Your task to perform on an android device: uninstall "Venmo" Image 0: 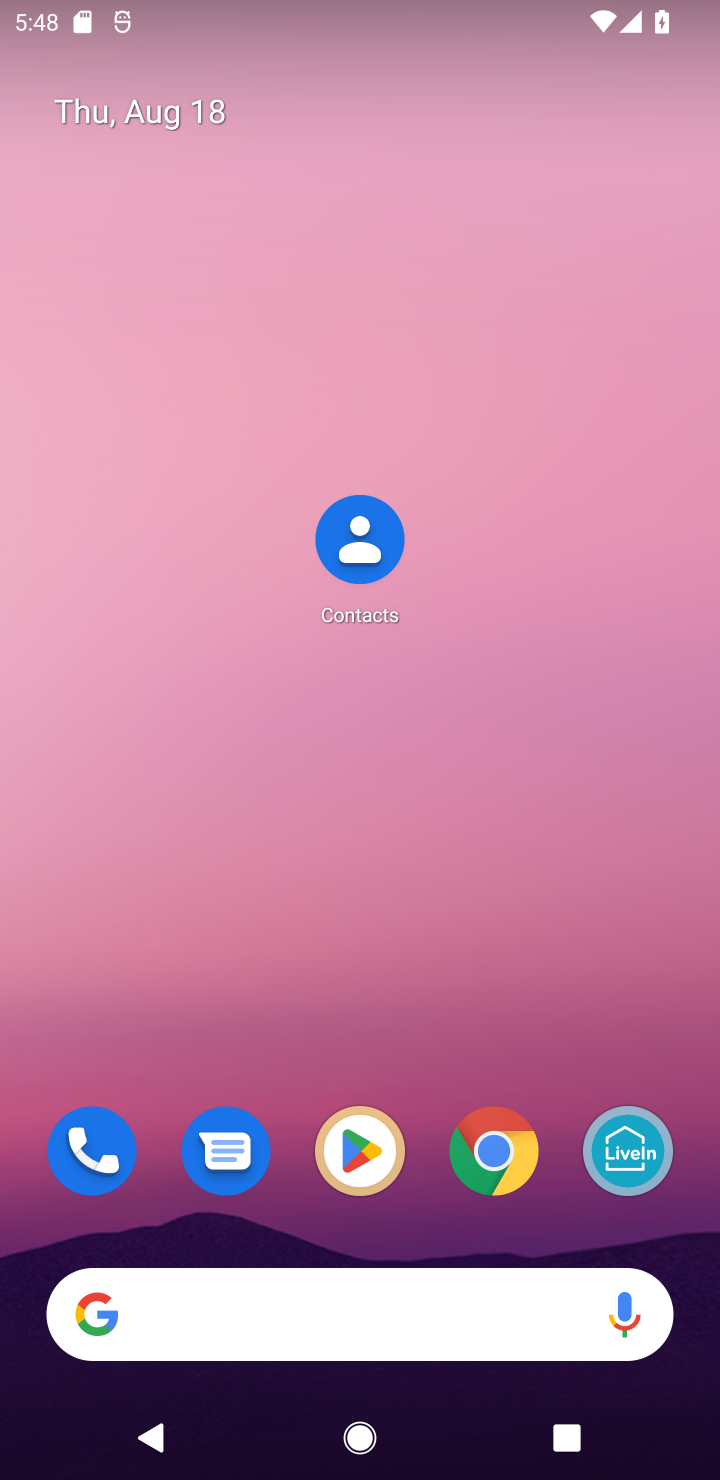
Step 0: drag from (424, 1215) to (620, 70)
Your task to perform on an android device: uninstall "Venmo" Image 1: 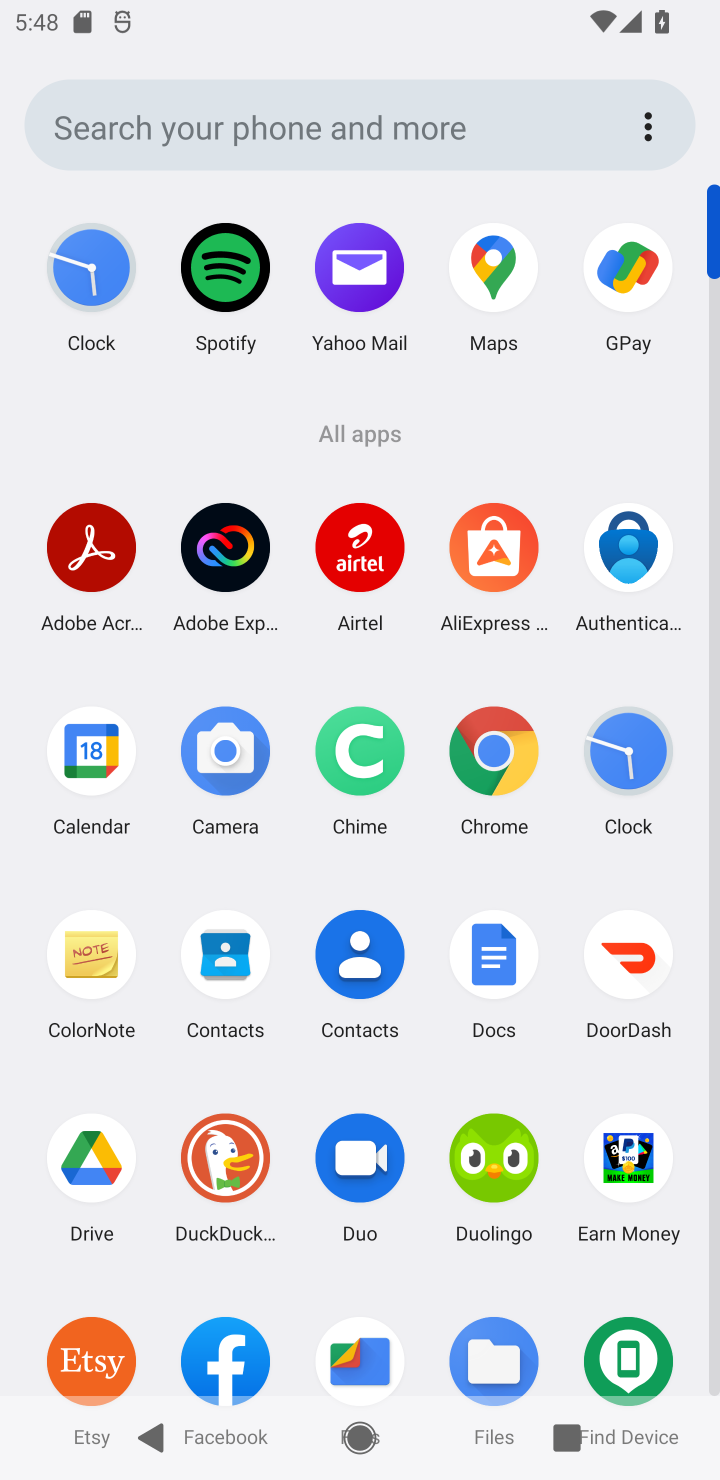
Step 1: click (339, 1476)
Your task to perform on an android device: uninstall "Venmo" Image 2: 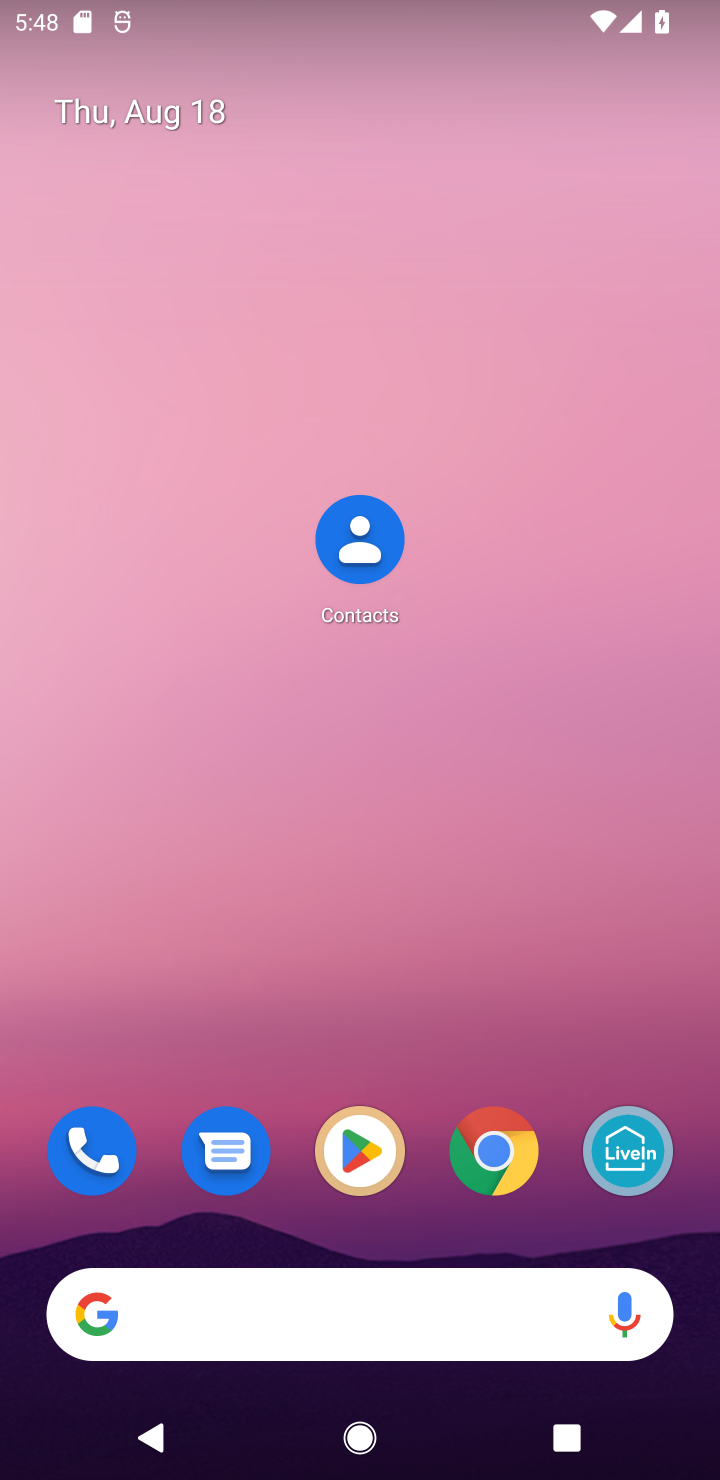
Step 2: click (355, 1184)
Your task to perform on an android device: uninstall "Venmo" Image 3: 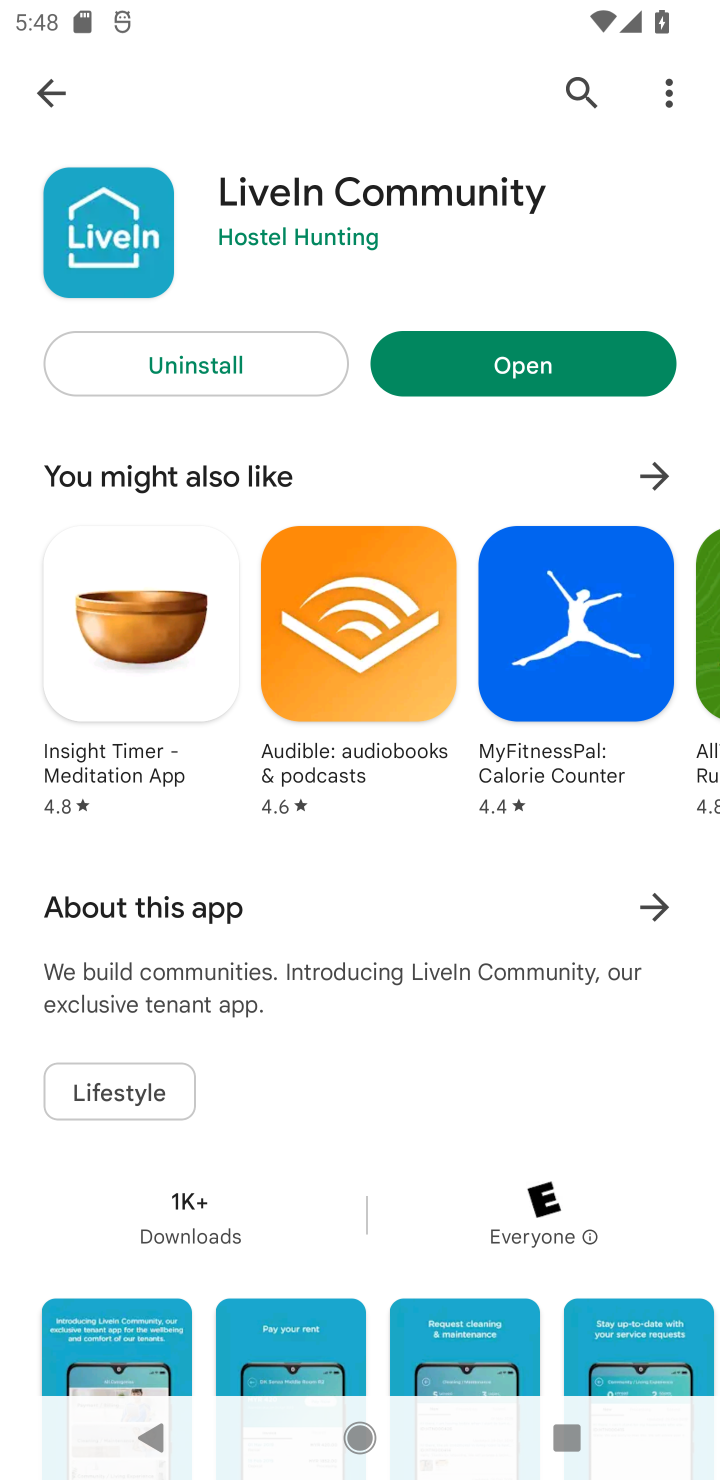
Step 3: click (552, 102)
Your task to perform on an android device: uninstall "Venmo" Image 4: 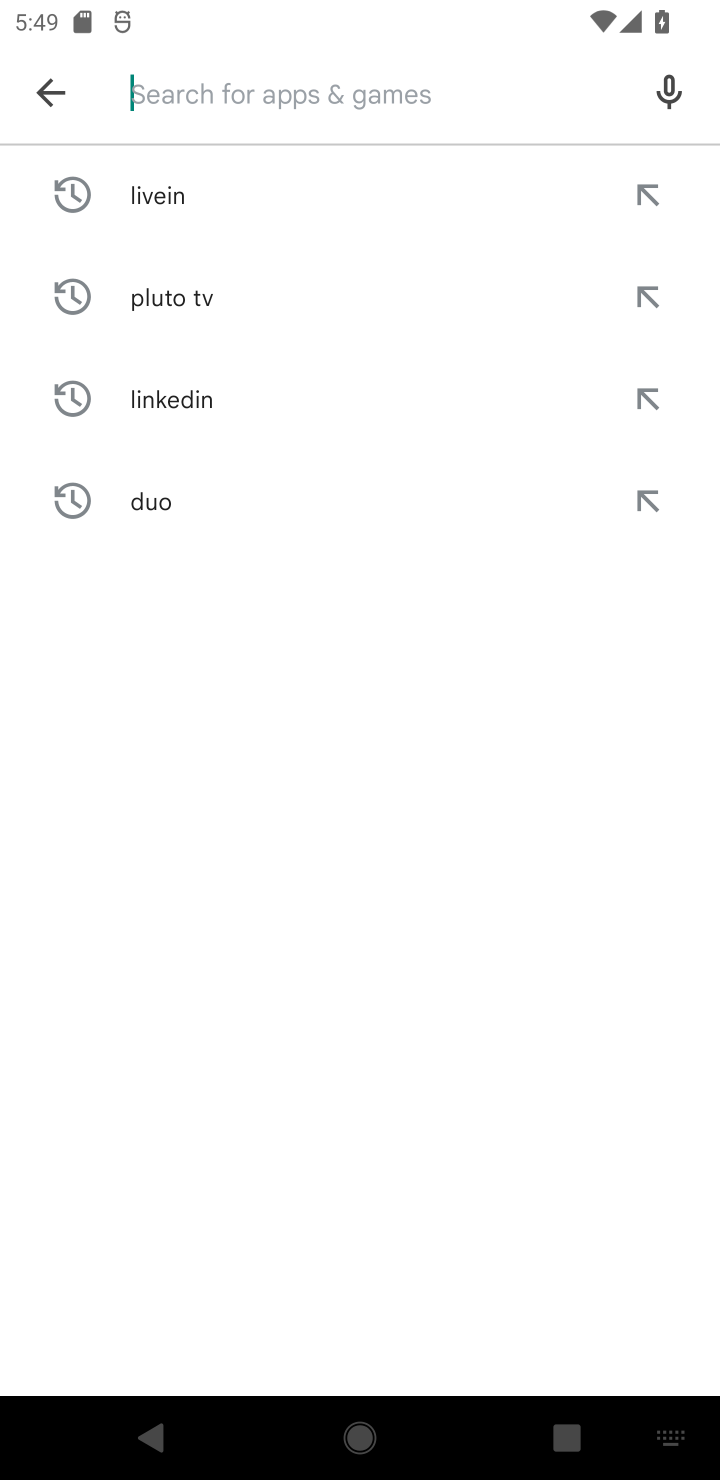
Step 4: type "venmo"
Your task to perform on an android device: uninstall "Venmo" Image 5: 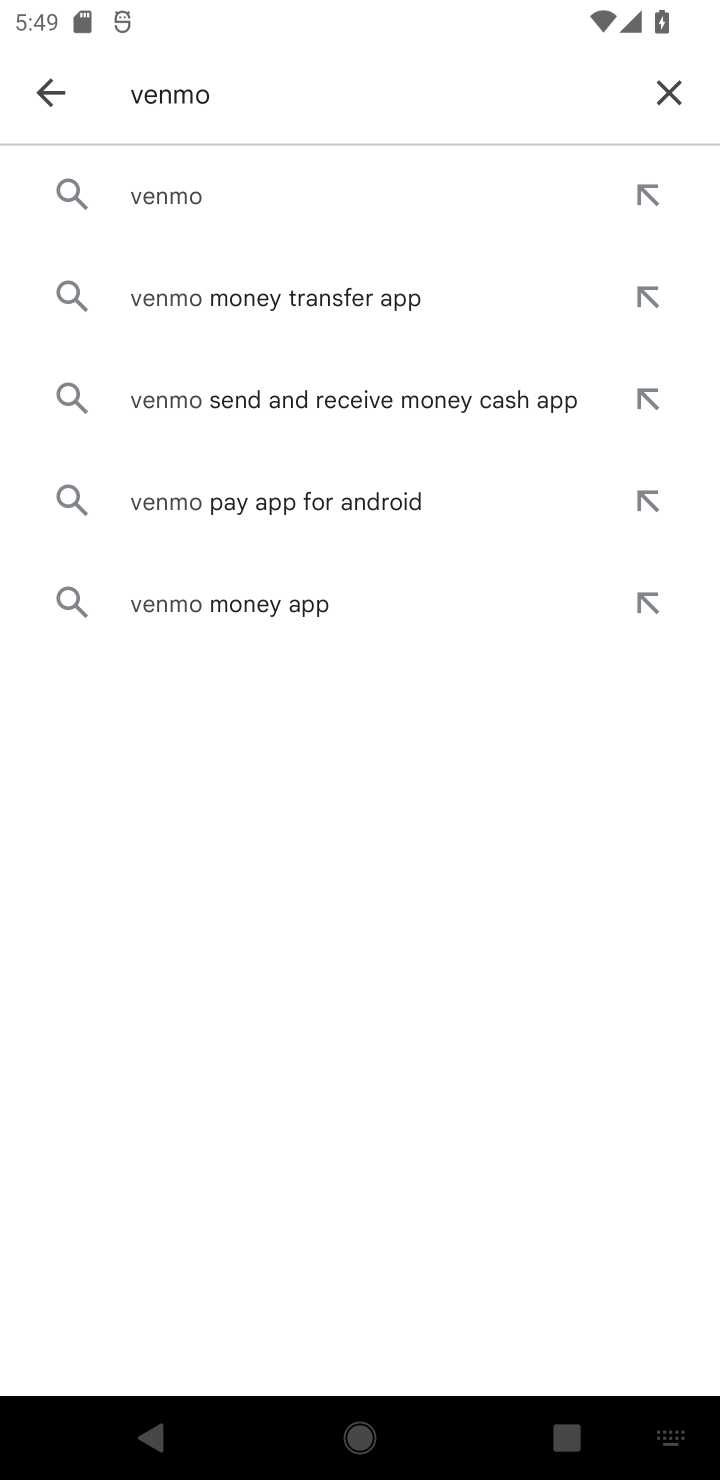
Step 5: click (445, 192)
Your task to perform on an android device: uninstall "Venmo" Image 6: 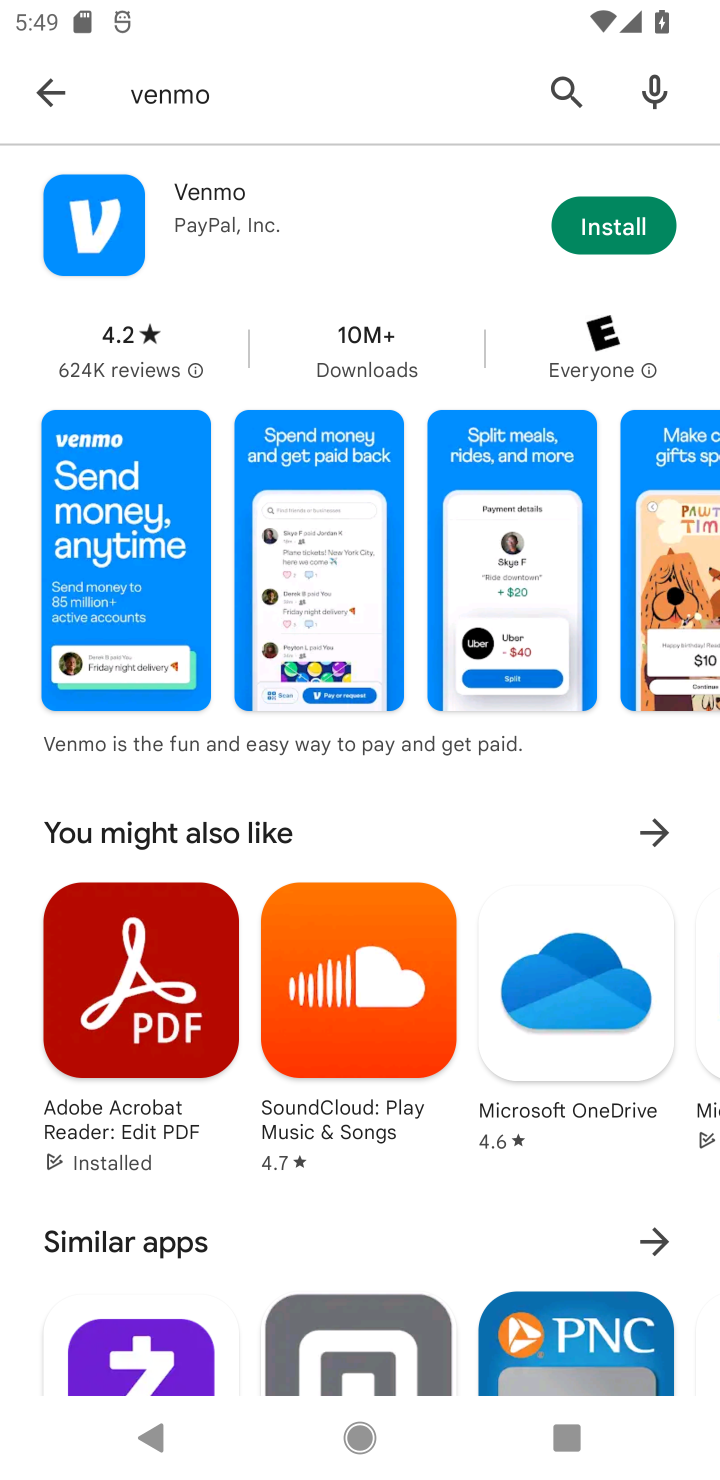
Step 6: click (632, 240)
Your task to perform on an android device: uninstall "Venmo" Image 7: 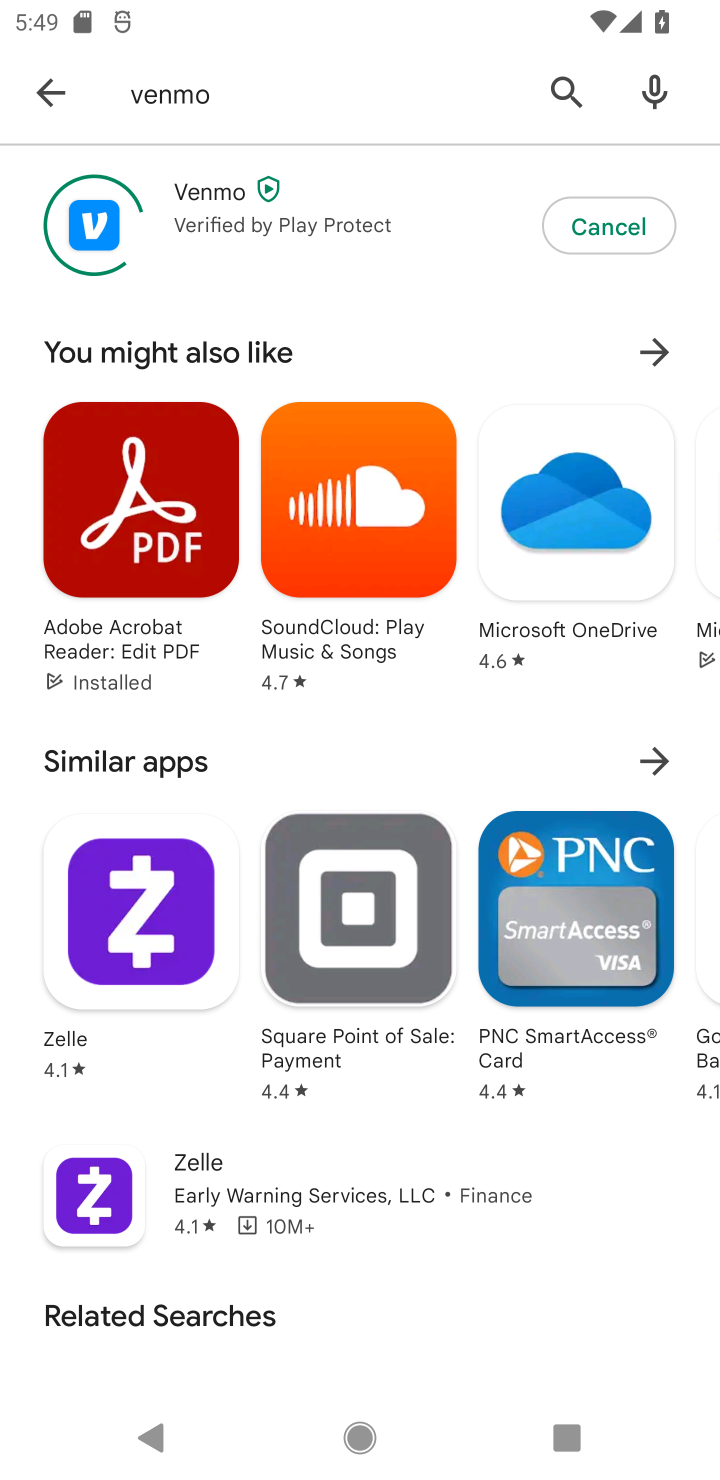
Step 7: task complete